Your task to perform on an android device: turn off wifi Image 0: 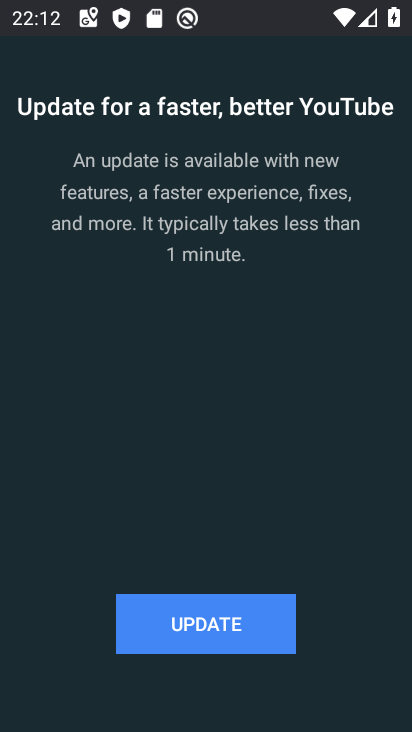
Step 0: press home button
Your task to perform on an android device: turn off wifi Image 1: 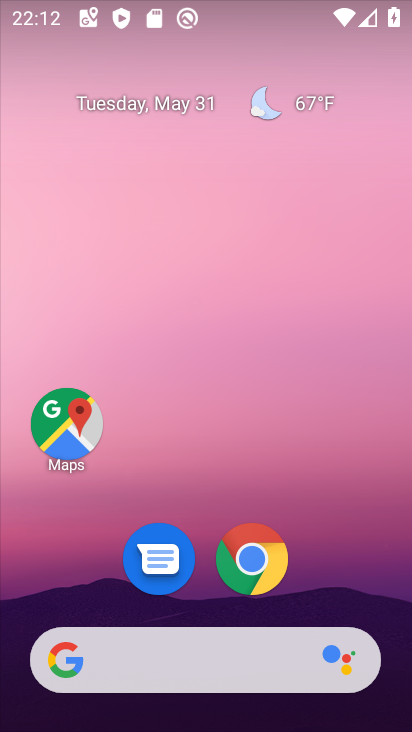
Step 1: drag from (318, 554) to (346, 118)
Your task to perform on an android device: turn off wifi Image 2: 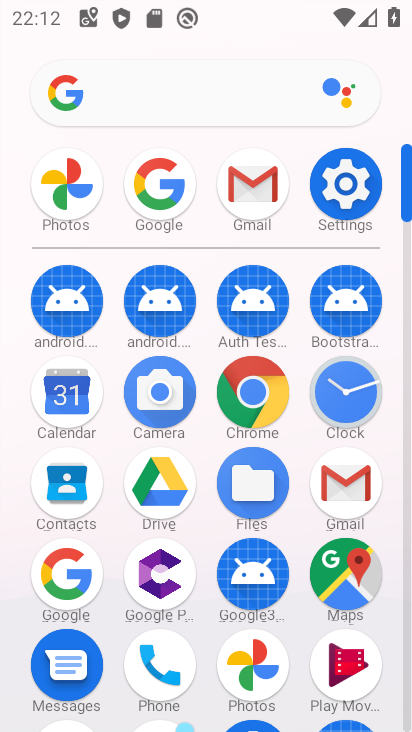
Step 2: click (350, 186)
Your task to perform on an android device: turn off wifi Image 3: 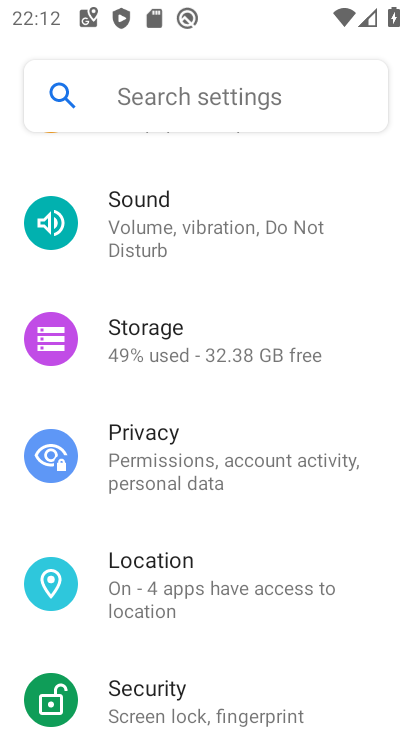
Step 3: drag from (166, 178) to (156, 600)
Your task to perform on an android device: turn off wifi Image 4: 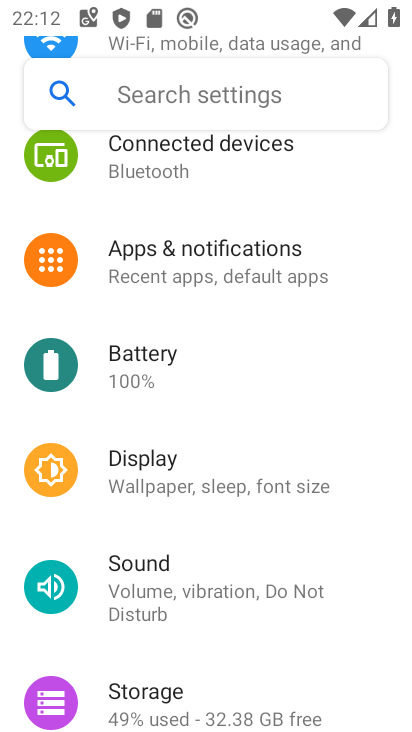
Step 4: drag from (203, 150) to (203, 559)
Your task to perform on an android device: turn off wifi Image 5: 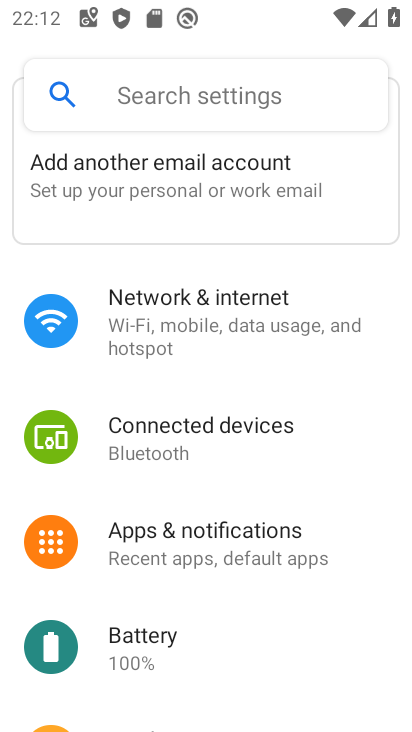
Step 5: click (178, 315)
Your task to perform on an android device: turn off wifi Image 6: 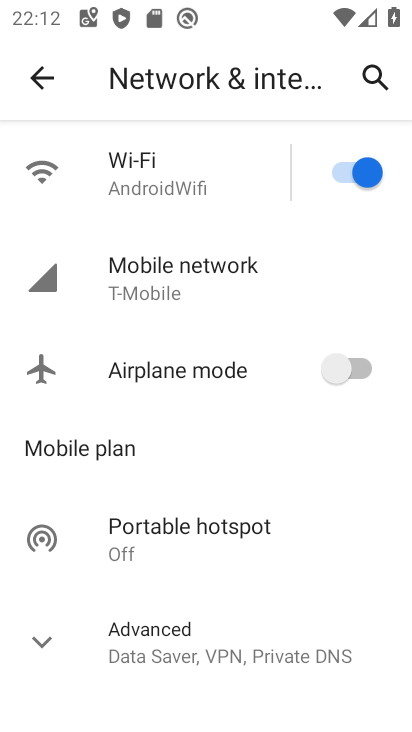
Step 6: click (350, 167)
Your task to perform on an android device: turn off wifi Image 7: 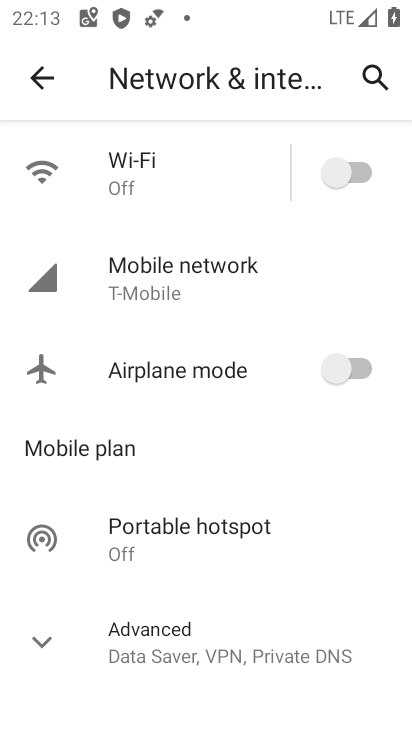
Step 7: task complete